Your task to perform on an android device: change the clock style Image 0: 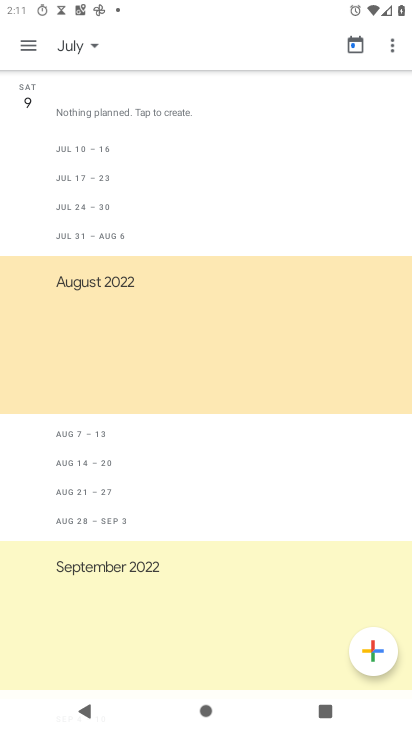
Step 0: press home button
Your task to perform on an android device: change the clock style Image 1: 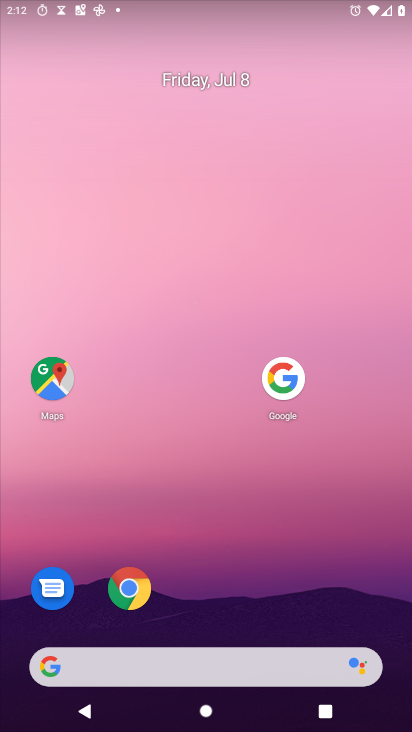
Step 1: drag from (162, 658) to (283, 78)
Your task to perform on an android device: change the clock style Image 2: 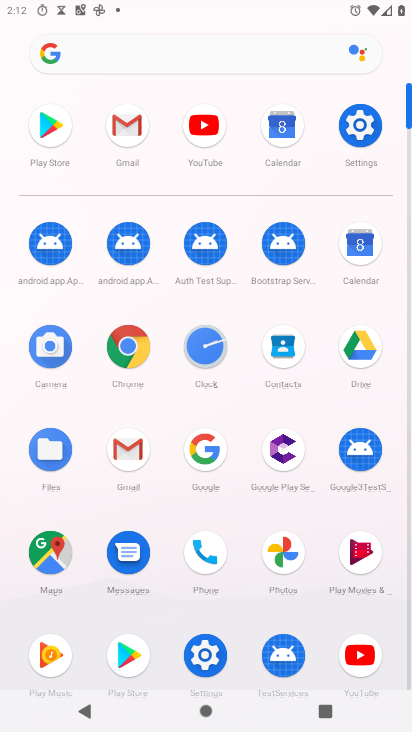
Step 2: click (199, 339)
Your task to perform on an android device: change the clock style Image 3: 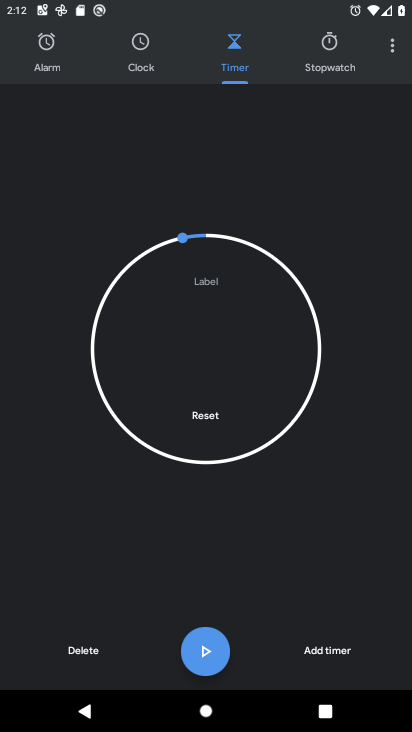
Step 3: click (390, 38)
Your task to perform on an android device: change the clock style Image 4: 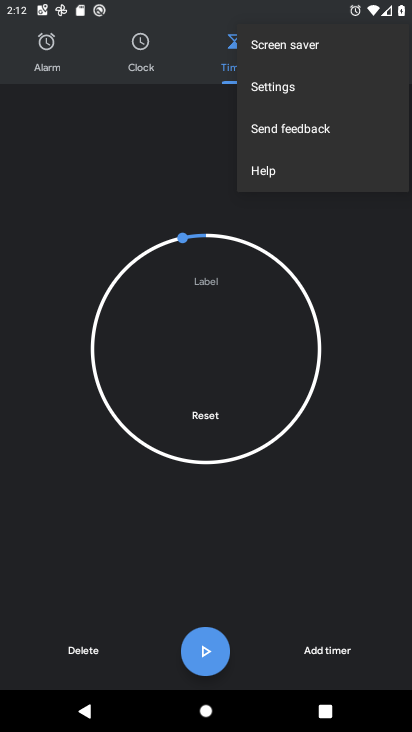
Step 4: click (288, 89)
Your task to perform on an android device: change the clock style Image 5: 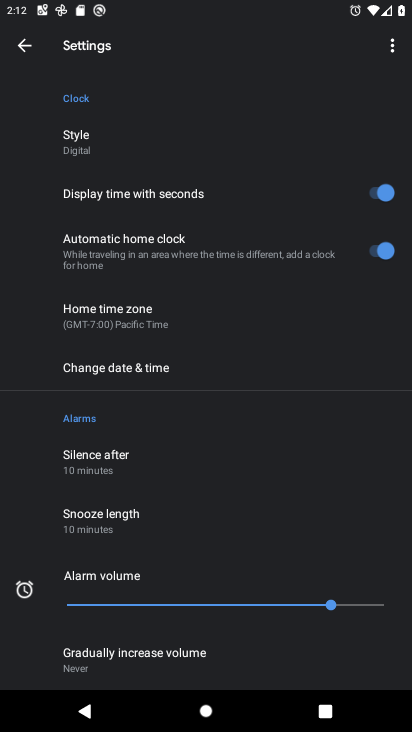
Step 5: click (87, 137)
Your task to perform on an android device: change the clock style Image 6: 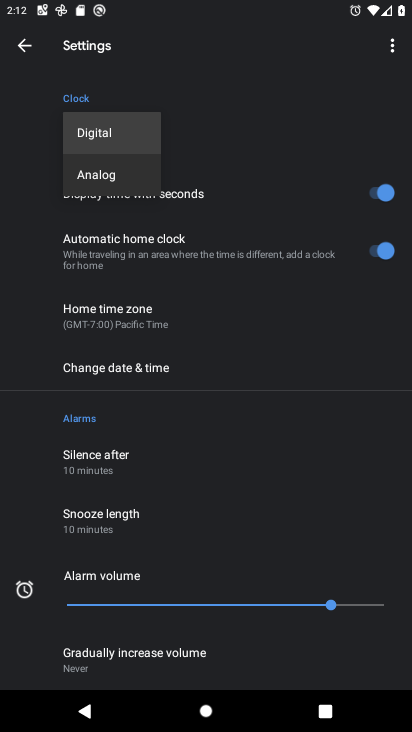
Step 6: click (104, 168)
Your task to perform on an android device: change the clock style Image 7: 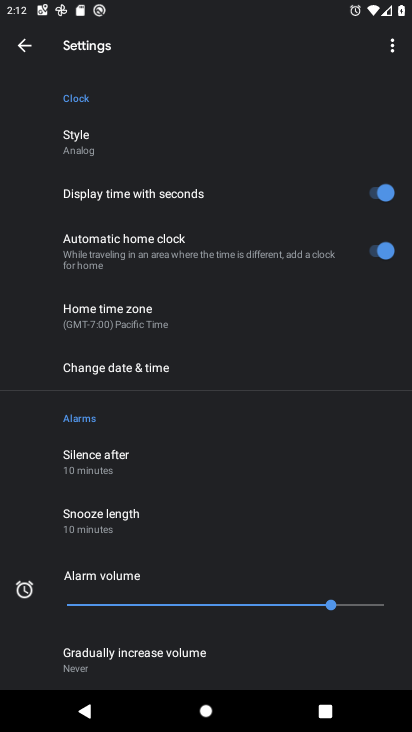
Step 7: task complete